Your task to perform on an android device: Go to location settings Image 0: 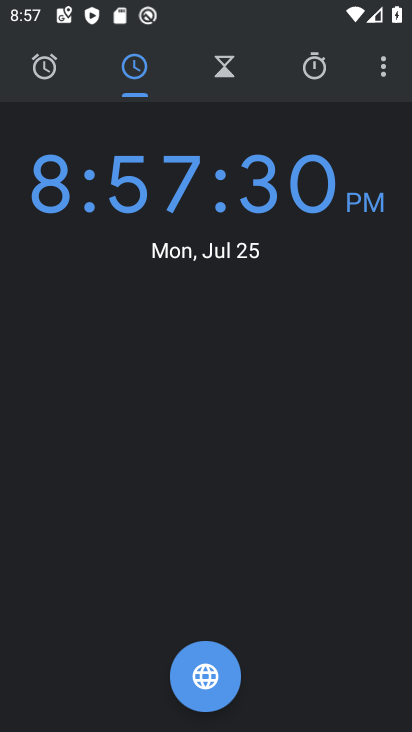
Step 0: press home button
Your task to perform on an android device: Go to location settings Image 1: 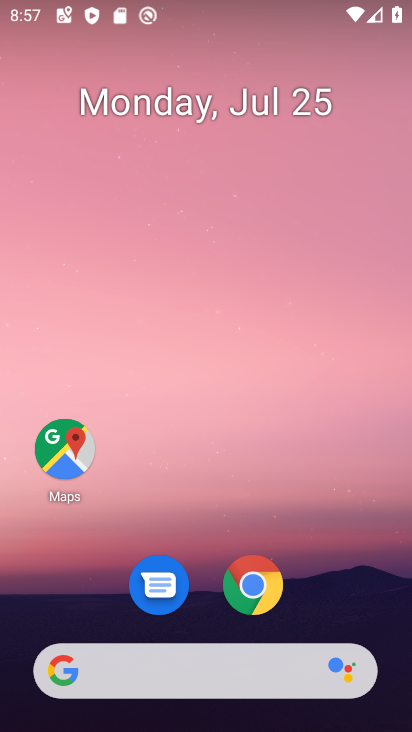
Step 1: drag from (207, 683) to (328, 156)
Your task to perform on an android device: Go to location settings Image 2: 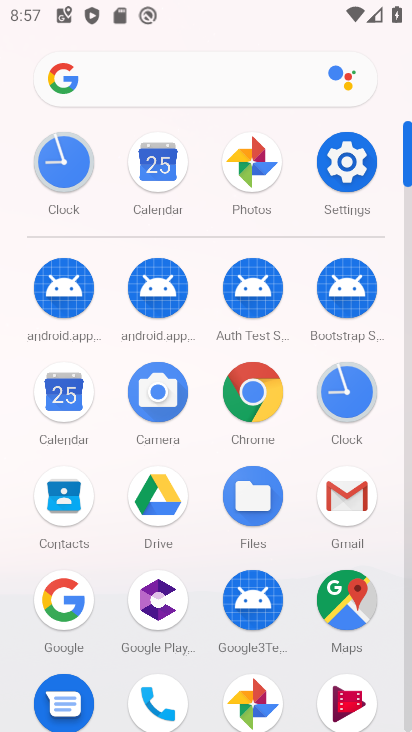
Step 2: click (344, 162)
Your task to perform on an android device: Go to location settings Image 3: 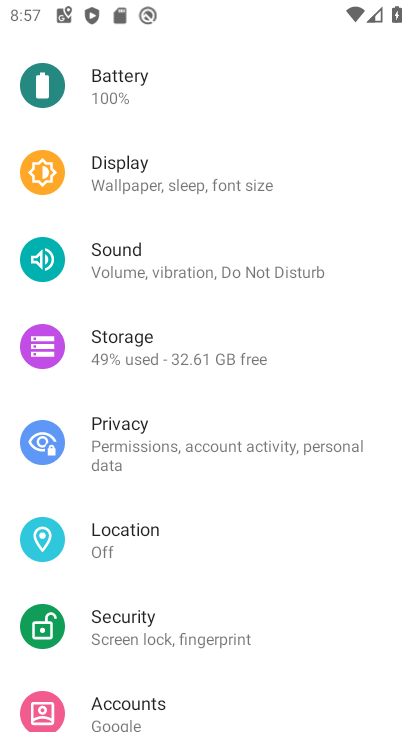
Step 3: click (133, 539)
Your task to perform on an android device: Go to location settings Image 4: 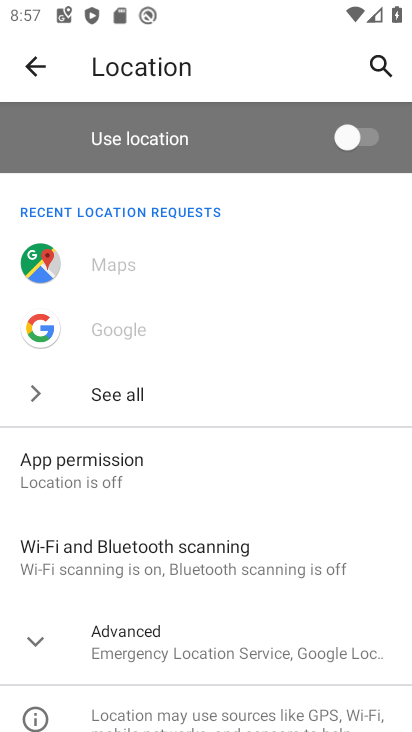
Step 4: task complete